Your task to perform on an android device: open app "The Home Depot" (install if not already installed) Image 0: 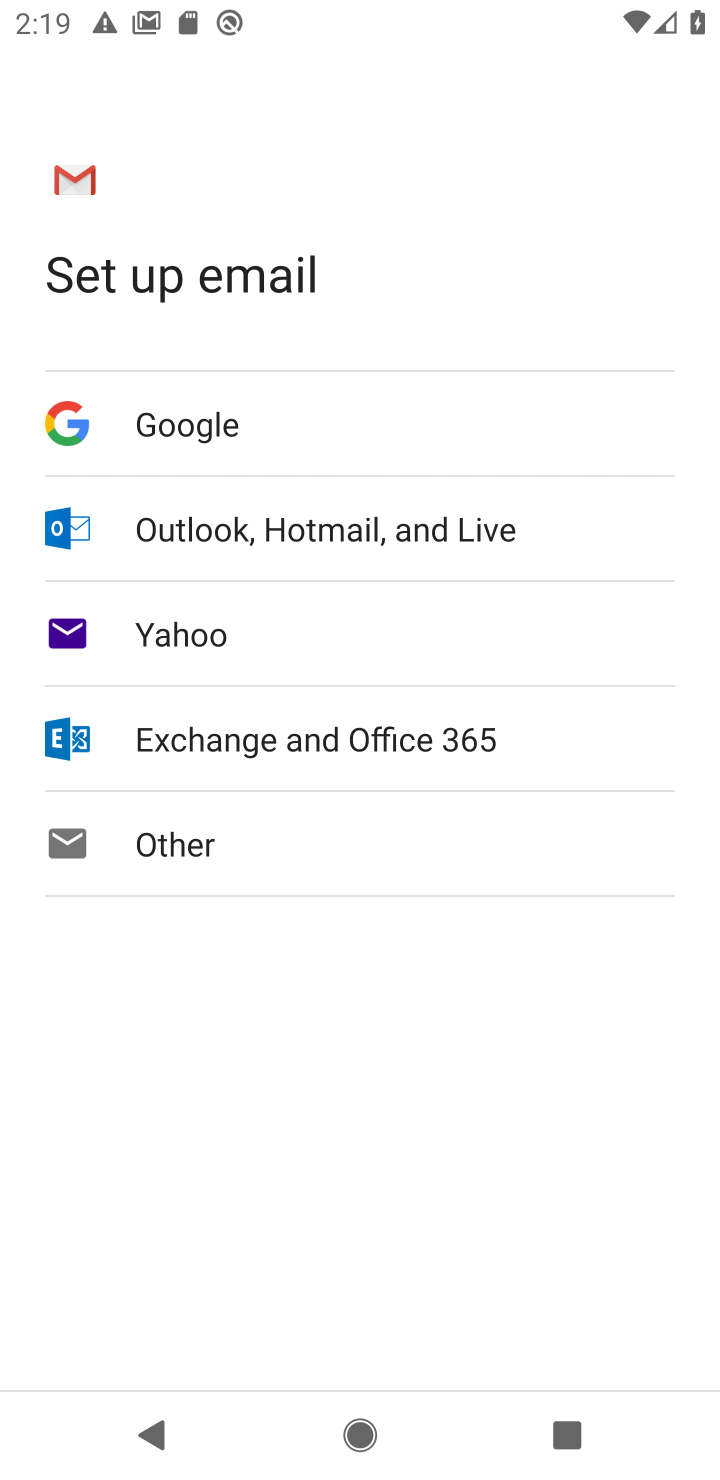
Step 0: press home button
Your task to perform on an android device: open app "The Home Depot" (install if not already installed) Image 1: 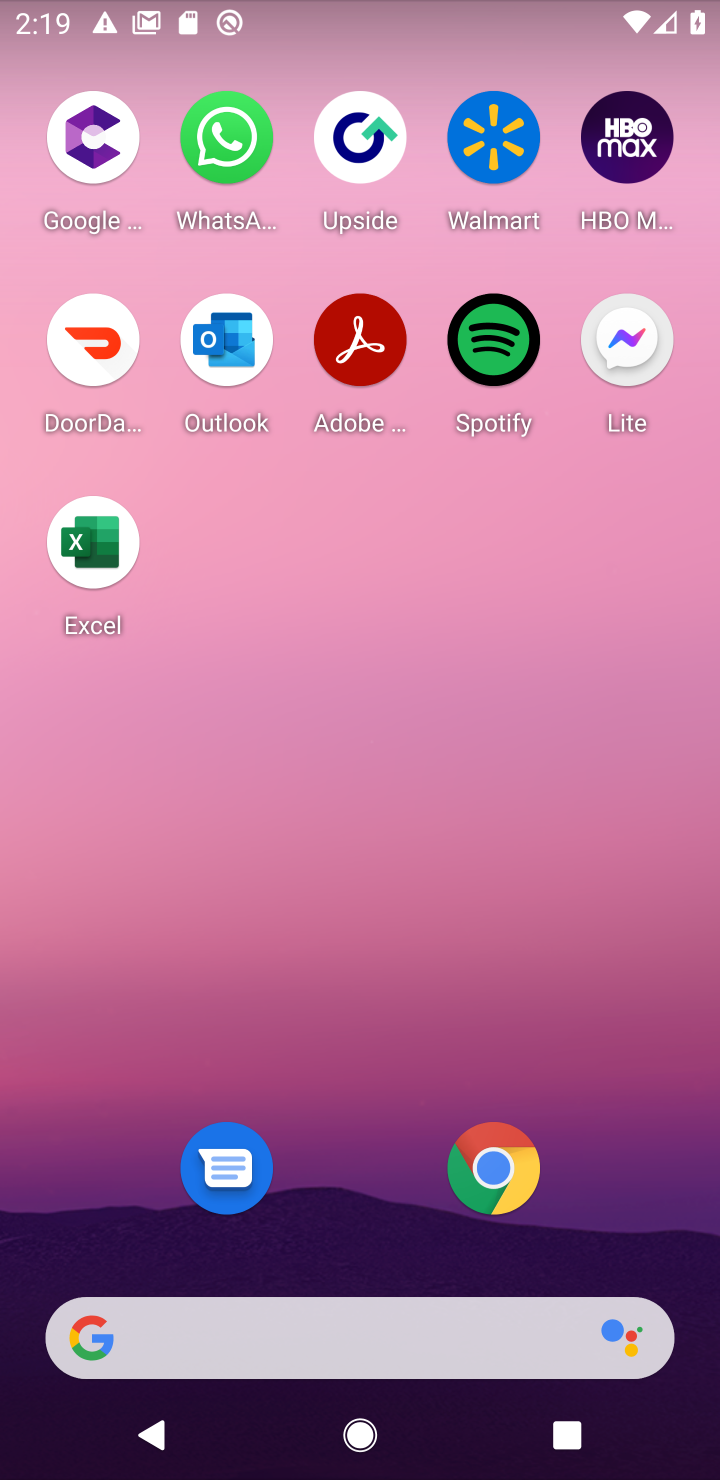
Step 1: drag from (333, 1324) to (343, 487)
Your task to perform on an android device: open app "The Home Depot" (install if not already installed) Image 2: 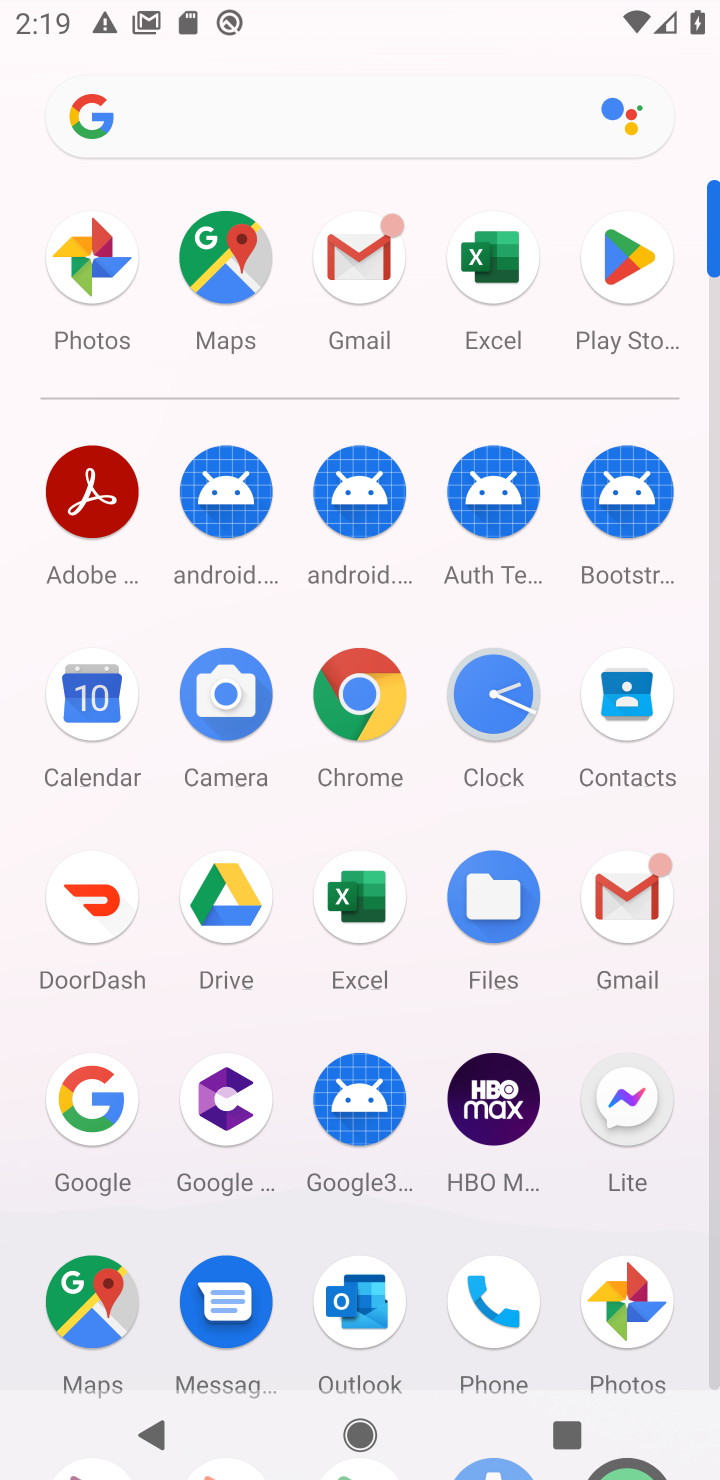
Step 2: click (627, 255)
Your task to perform on an android device: open app "The Home Depot" (install if not already installed) Image 3: 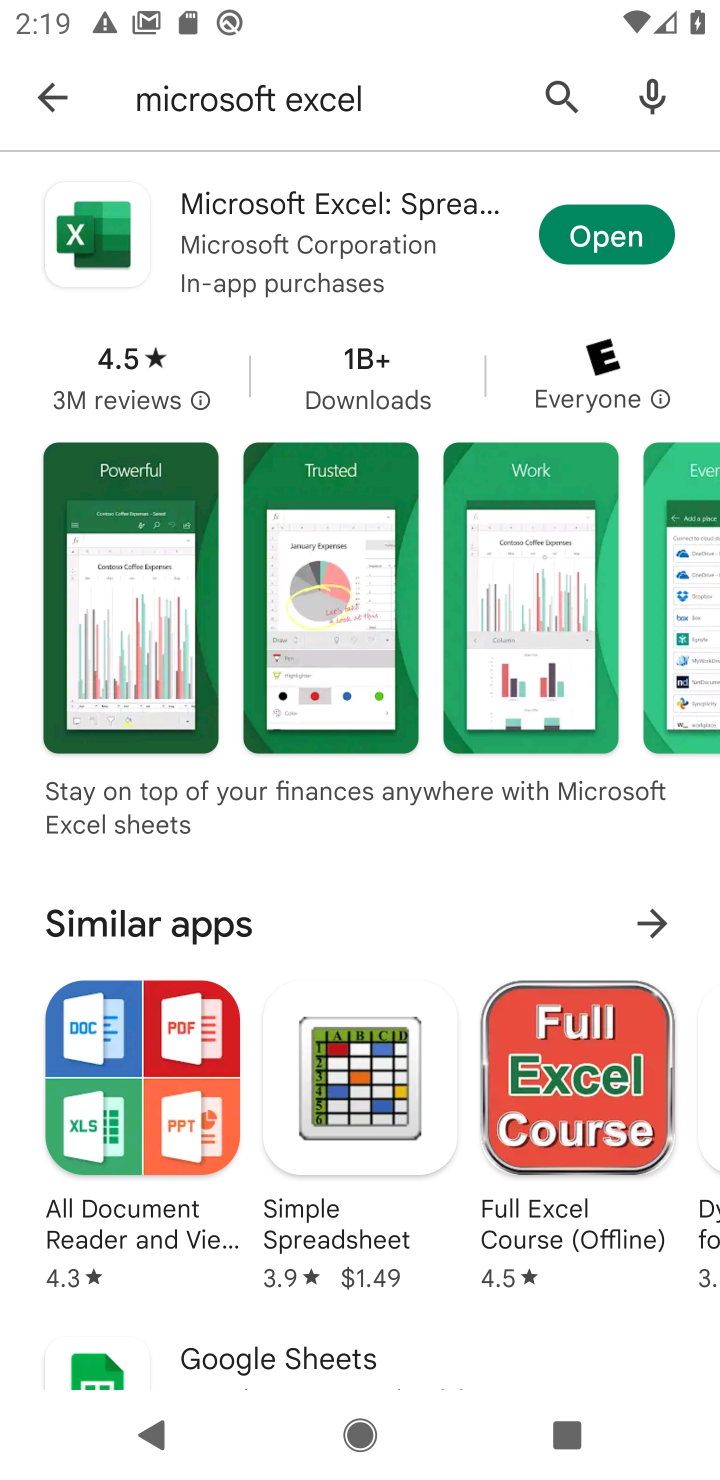
Step 3: press back button
Your task to perform on an android device: open app "The Home Depot" (install if not already installed) Image 4: 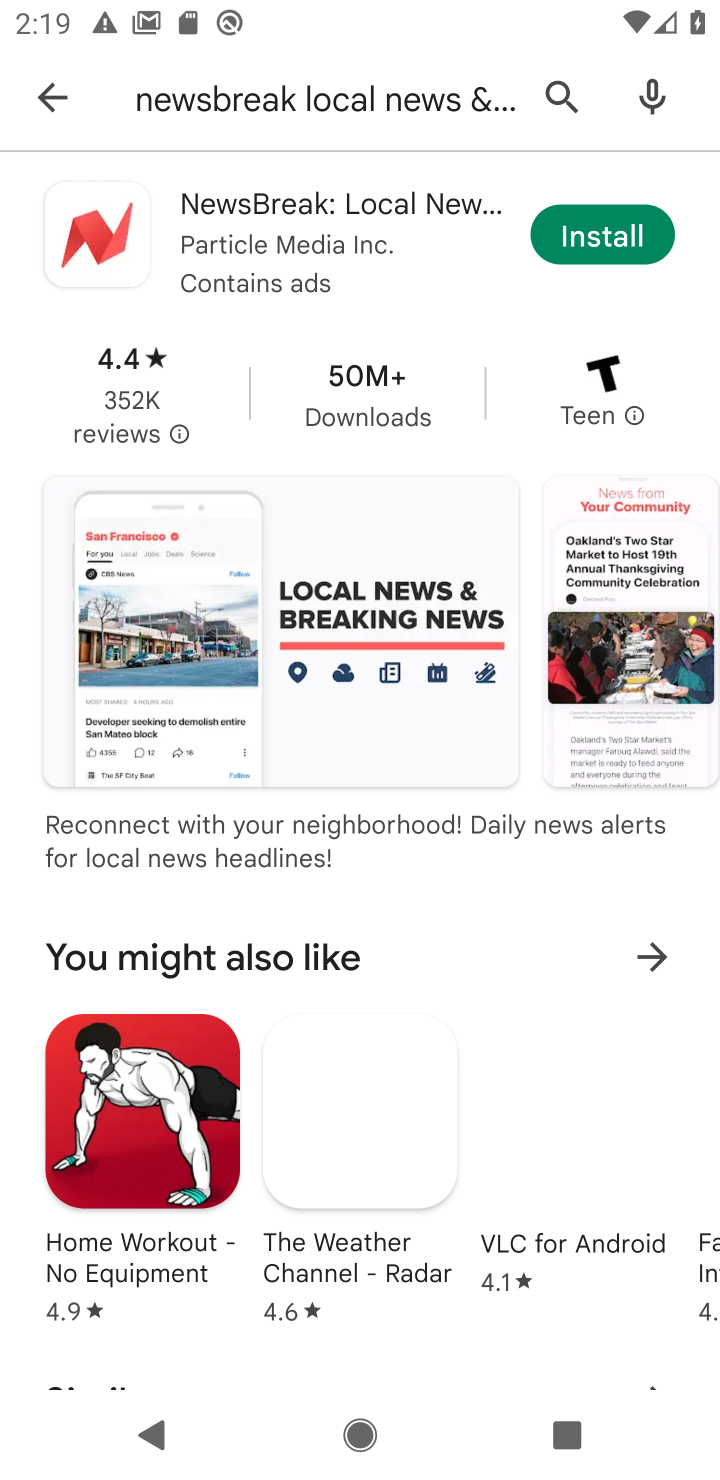
Step 4: press back button
Your task to perform on an android device: open app "The Home Depot" (install if not already installed) Image 5: 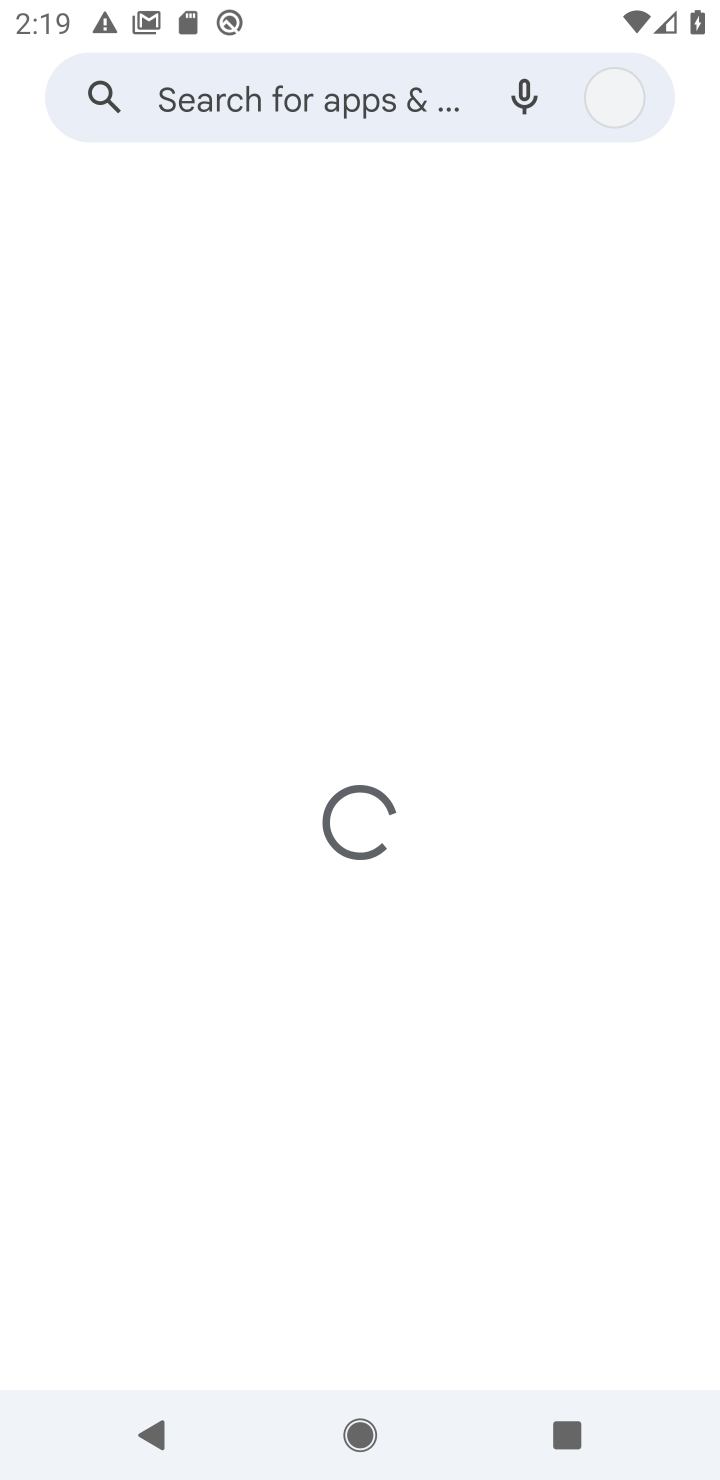
Step 5: click (337, 94)
Your task to perform on an android device: open app "The Home Depot" (install if not already installed) Image 6: 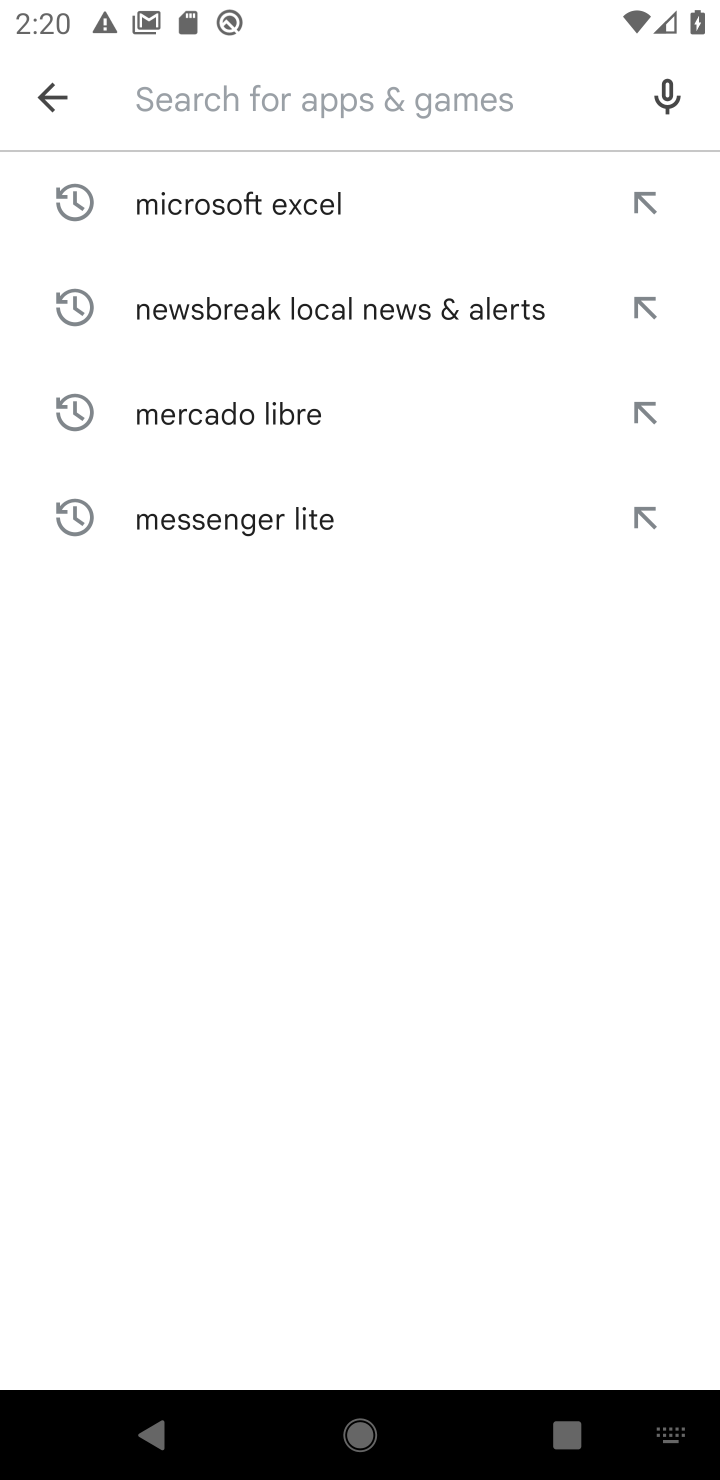
Step 6: type "The Home Depot"
Your task to perform on an android device: open app "The Home Depot" (install if not already installed) Image 7: 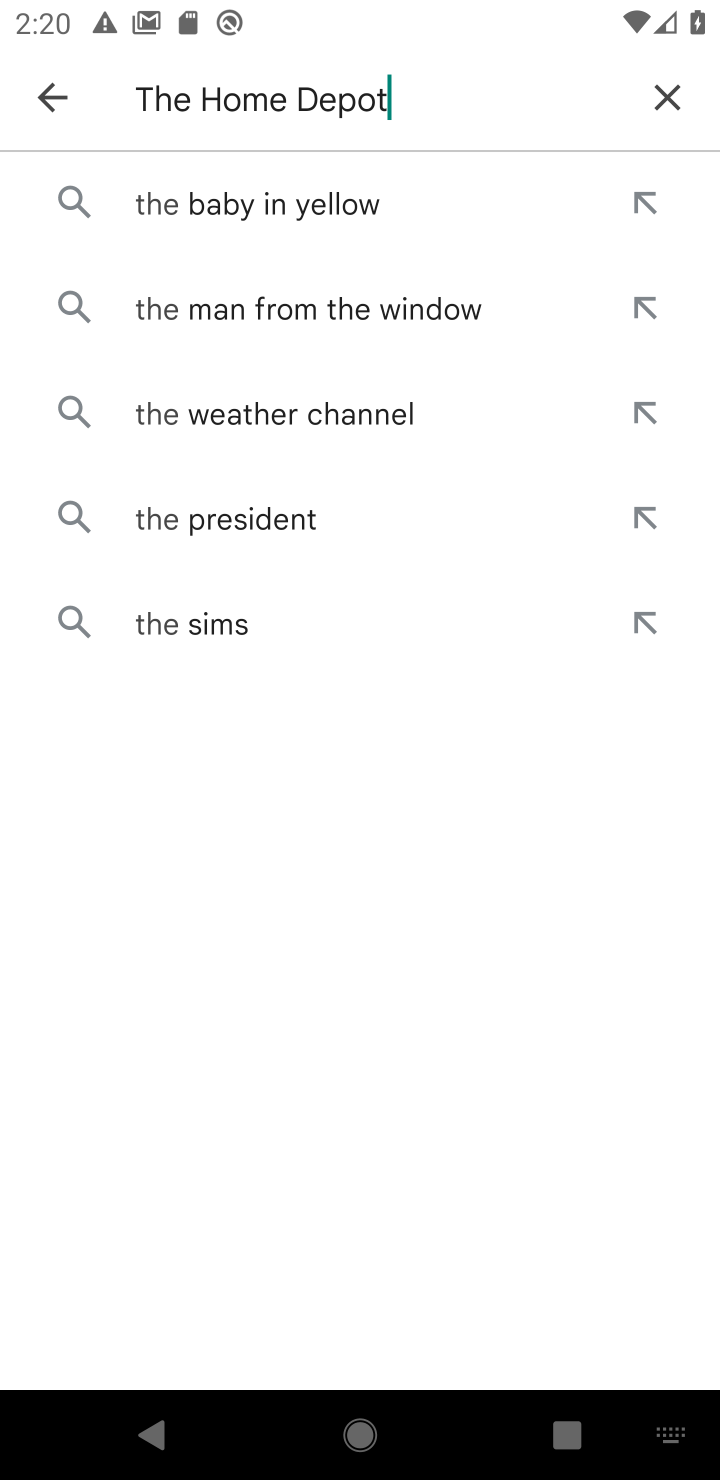
Step 7: type ""
Your task to perform on an android device: open app "The Home Depot" (install if not already installed) Image 8: 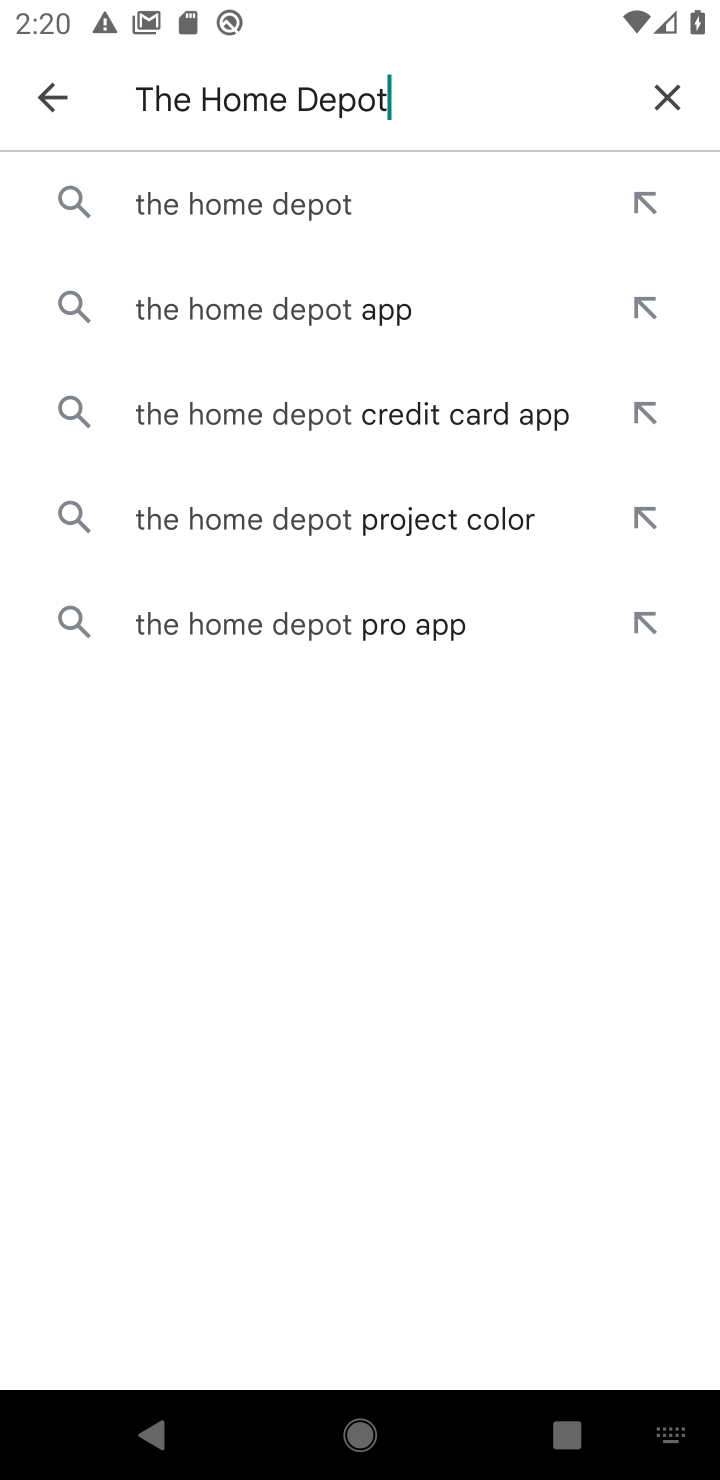
Step 8: click (254, 202)
Your task to perform on an android device: open app "The Home Depot" (install if not already installed) Image 9: 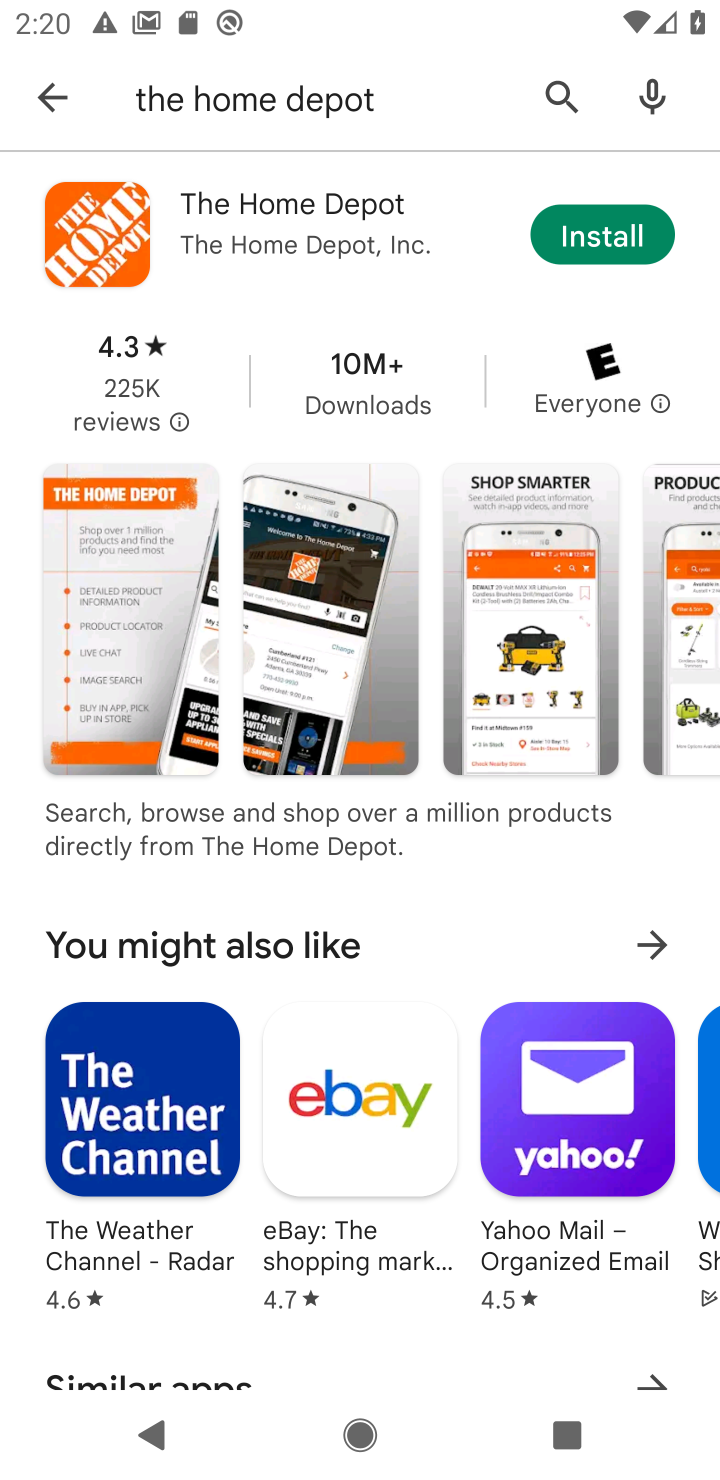
Step 9: click (600, 237)
Your task to perform on an android device: open app "The Home Depot" (install if not already installed) Image 10: 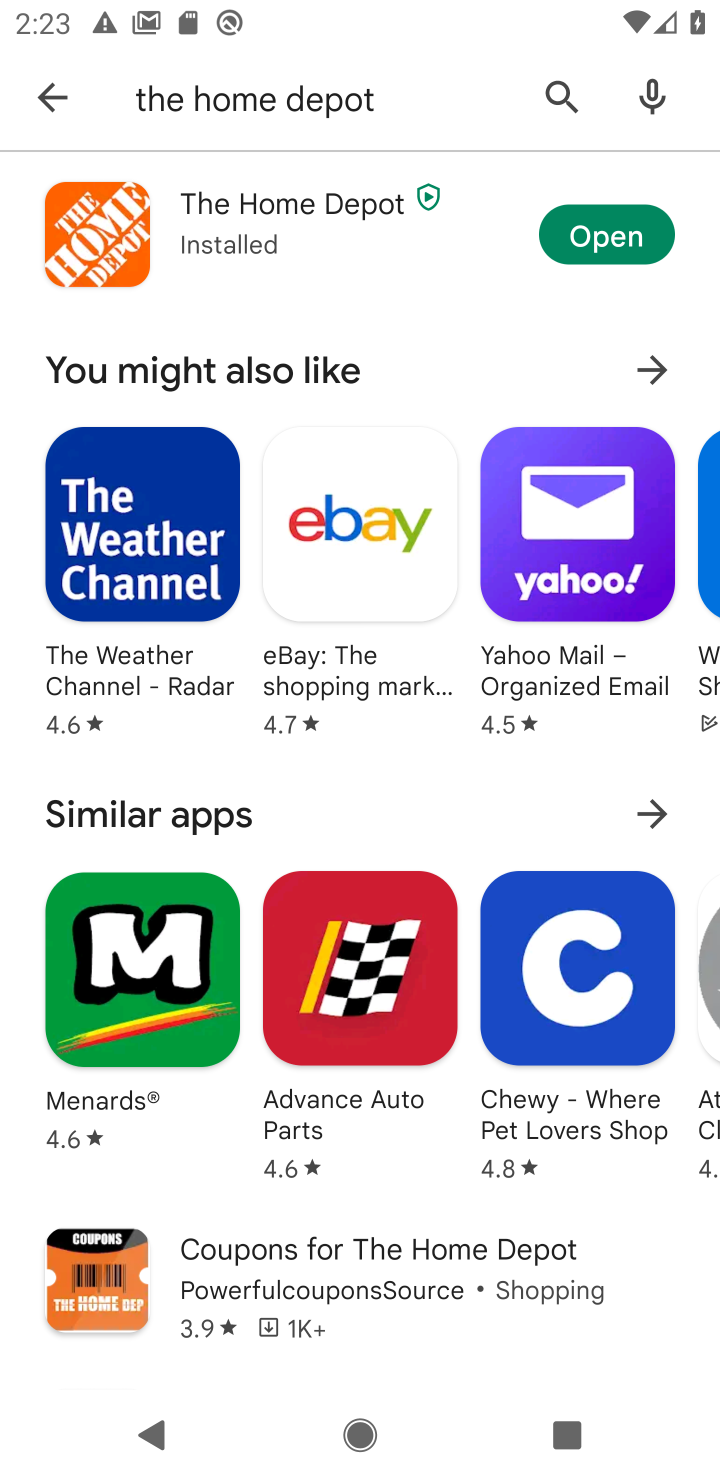
Step 10: click (624, 244)
Your task to perform on an android device: open app "The Home Depot" (install if not already installed) Image 11: 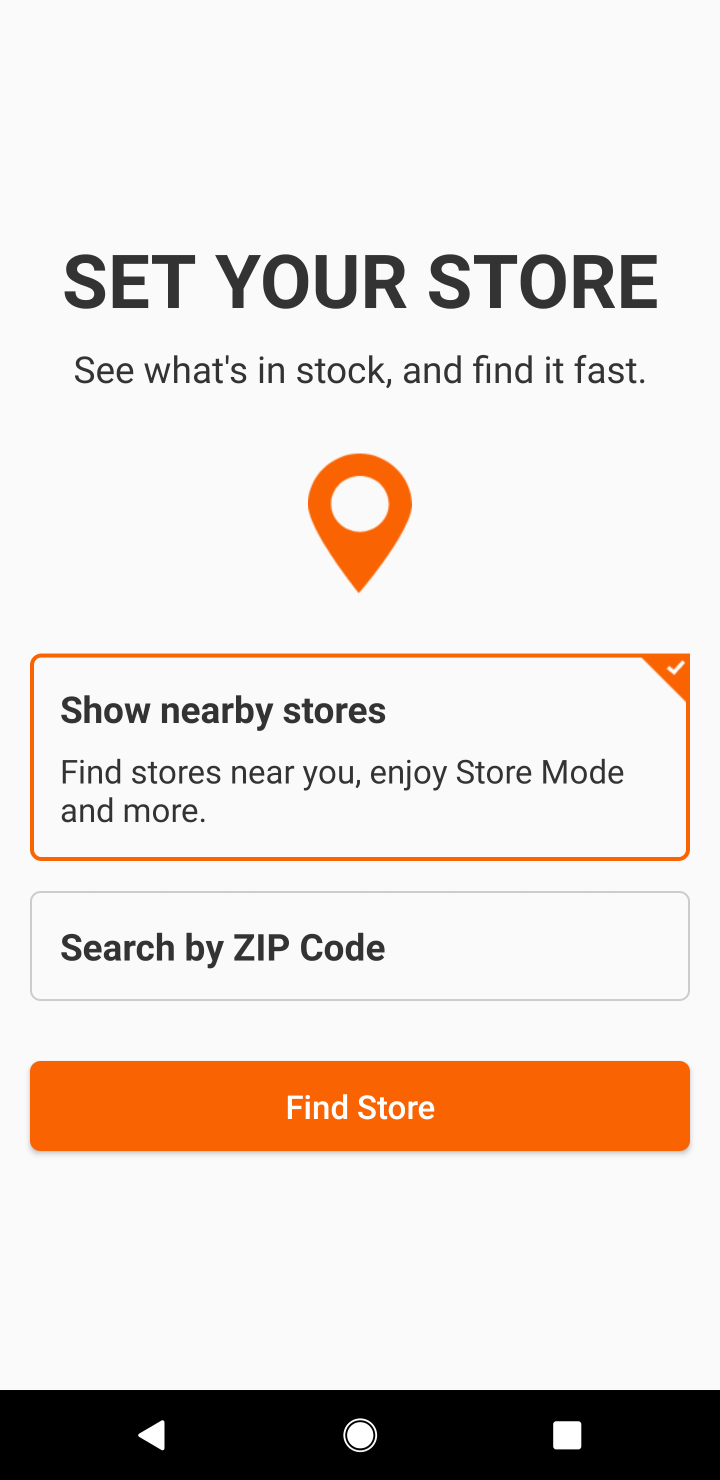
Step 11: task complete